Your task to perform on an android device: Toggle the flashlight Image 0: 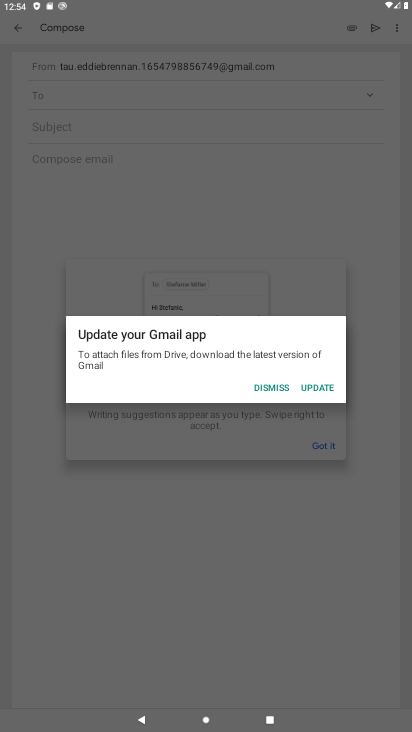
Step 0: press home button
Your task to perform on an android device: Toggle the flashlight Image 1: 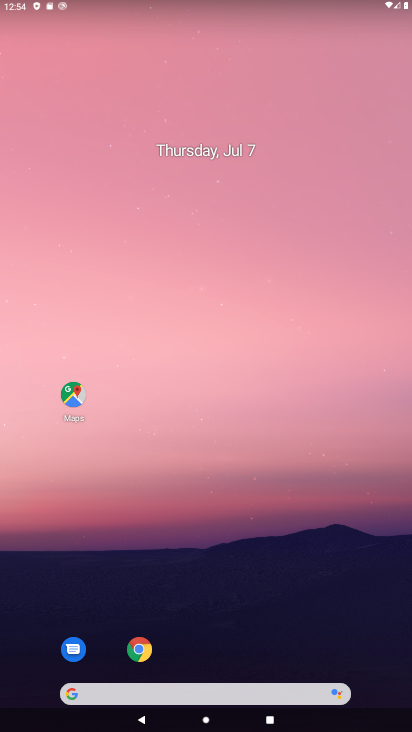
Step 1: task complete